Your task to perform on an android device: Go to network settings Image 0: 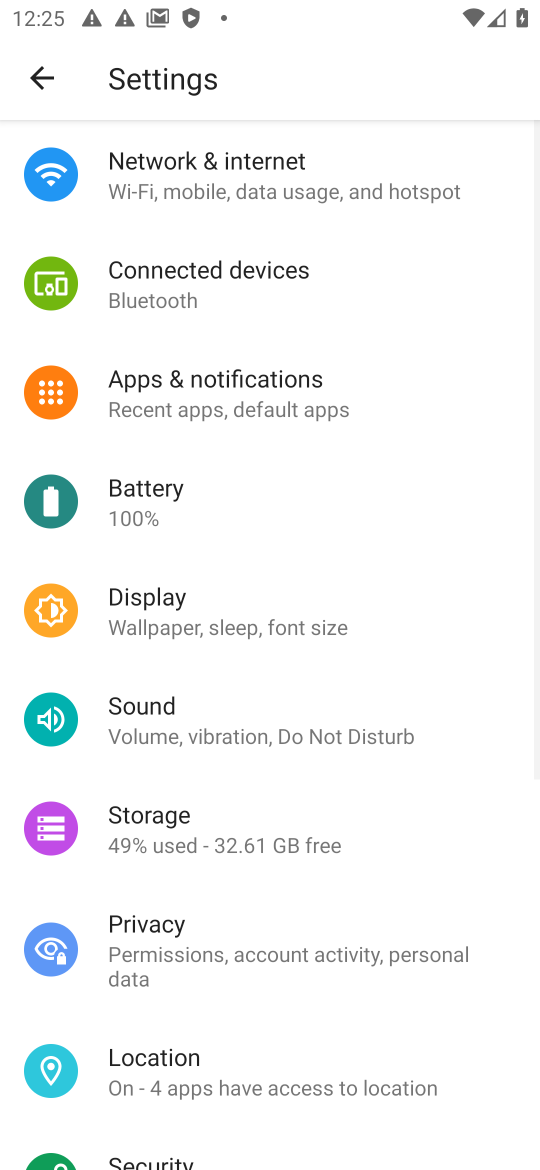
Step 0: click (201, 189)
Your task to perform on an android device: Go to network settings Image 1: 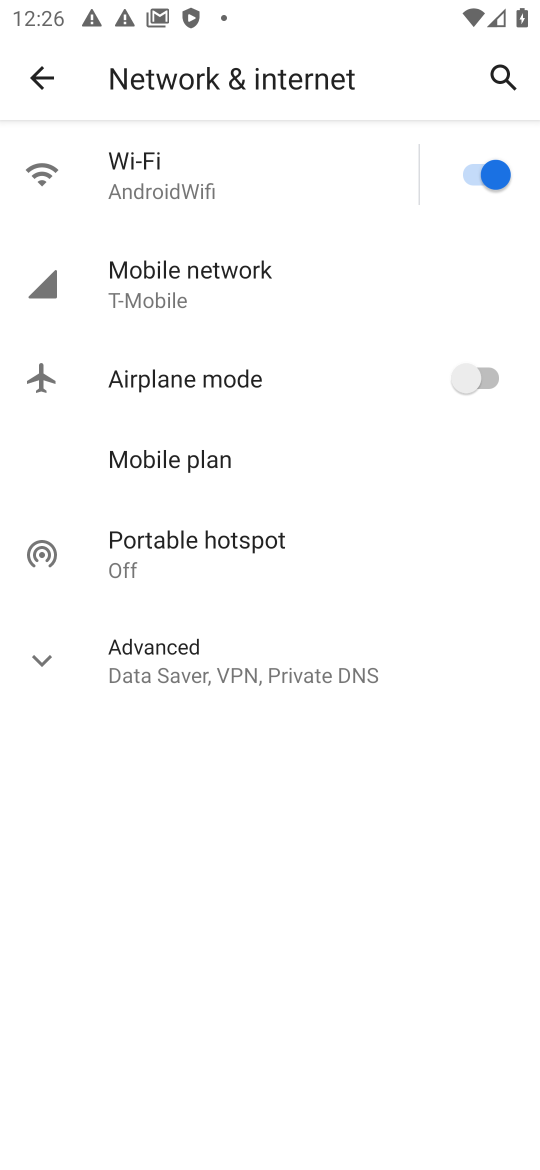
Step 1: task complete